Your task to perform on an android device: What's the weather going to be this weekend? Image 0: 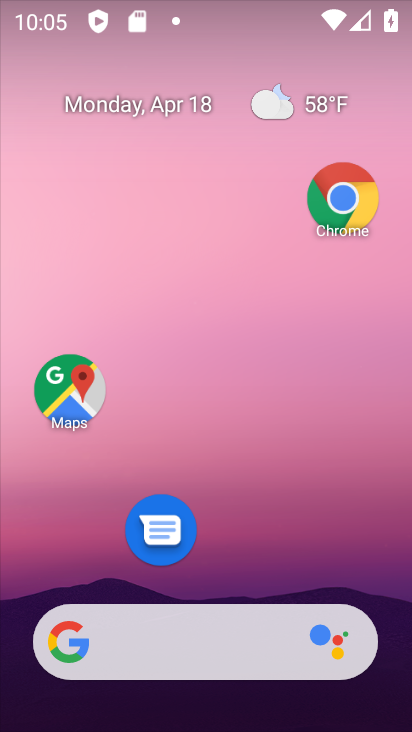
Step 0: click (348, 204)
Your task to perform on an android device: What's the weather going to be this weekend? Image 1: 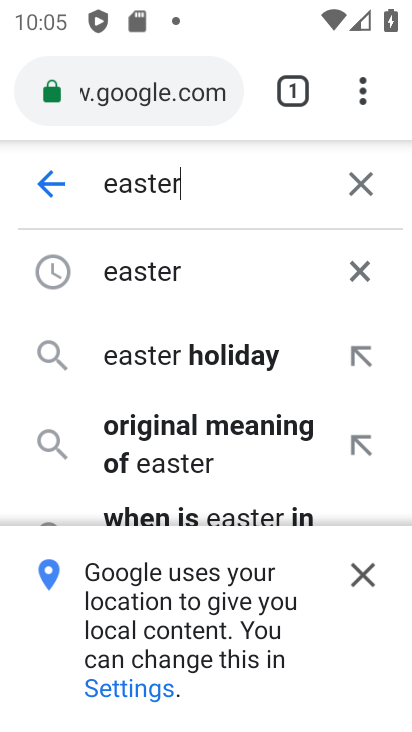
Step 1: click (157, 105)
Your task to perform on an android device: What's the weather going to be this weekend? Image 2: 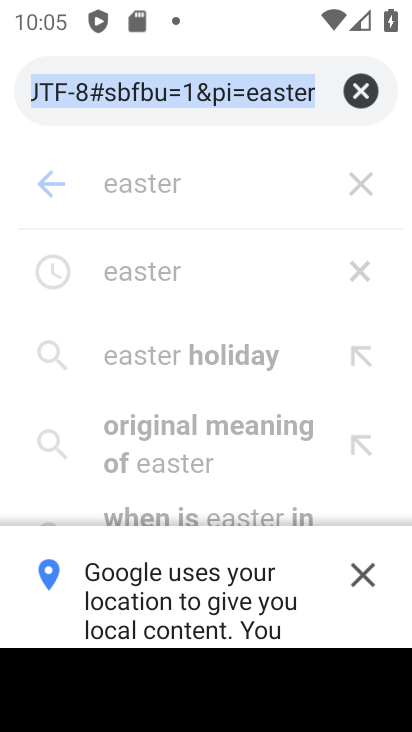
Step 2: type "what's the weather going to be this weekend?"
Your task to perform on an android device: What's the weather going to be this weekend? Image 3: 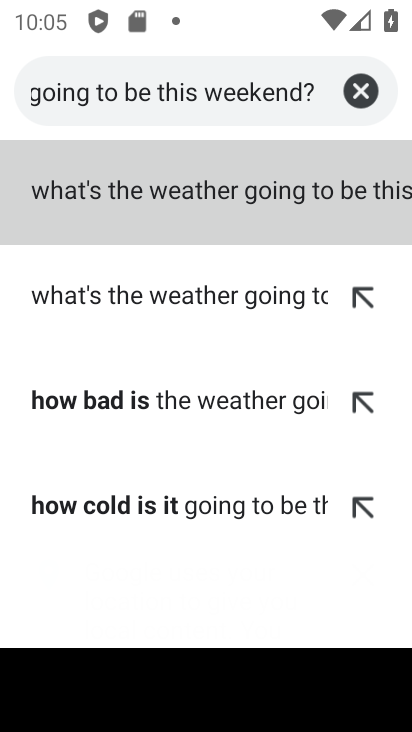
Step 3: click (208, 223)
Your task to perform on an android device: What's the weather going to be this weekend? Image 4: 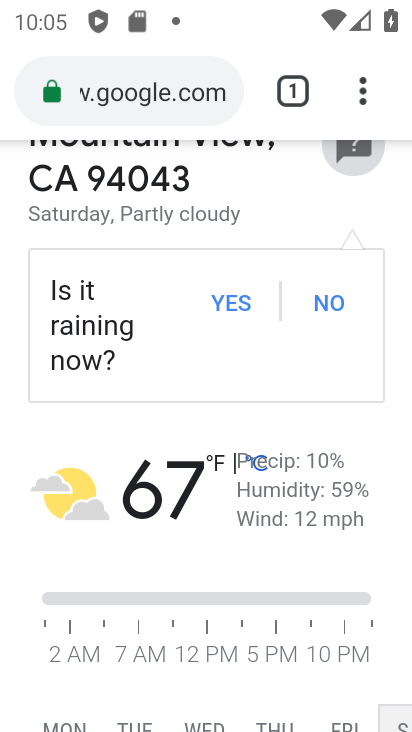
Step 4: task complete